Your task to perform on an android device: Open battery settings Image 0: 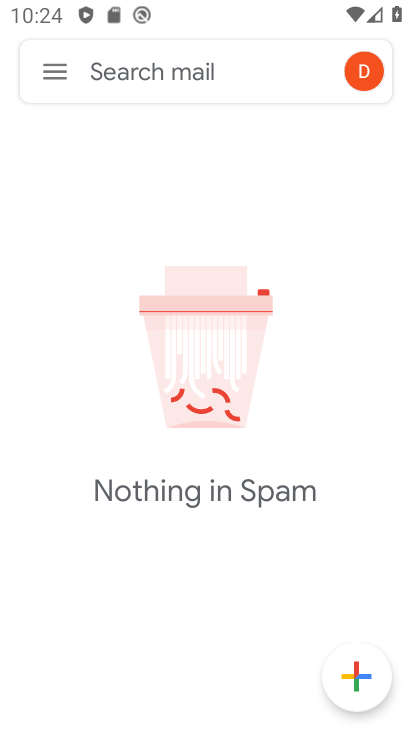
Step 0: press home button
Your task to perform on an android device: Open battery settings Image 1: 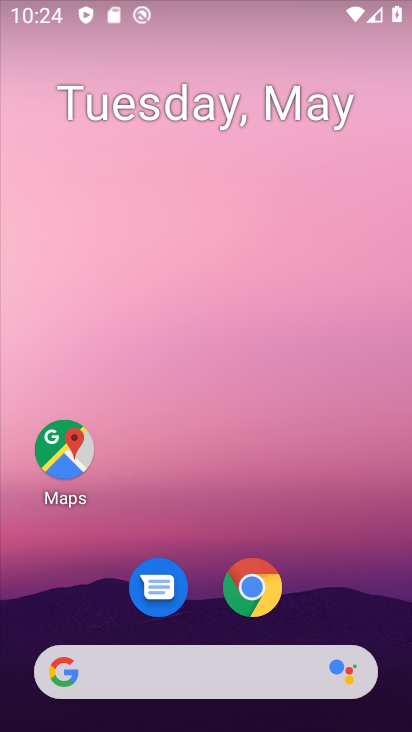
Step 1: drag from (341, 579) to (298, 123)
Your task to perform on an android device: Open battery settings Image 2: 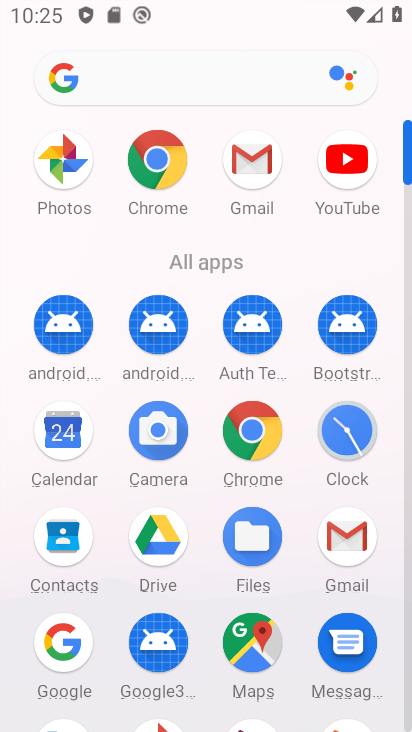
Step 2: drag from (195, 556) to (242, 254)
Your task to perform on an android device: Open battery settings Image 3: 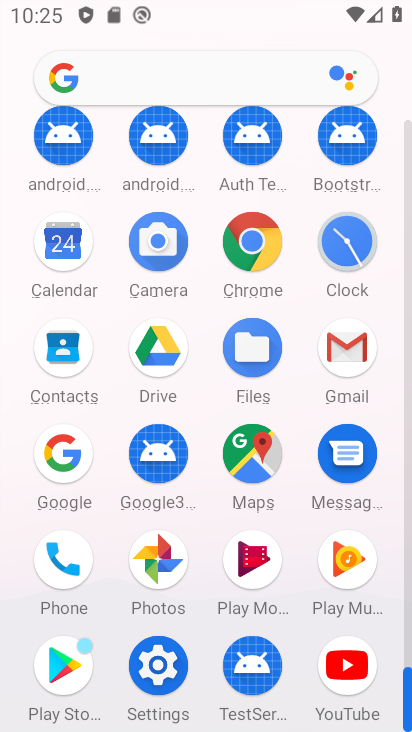
Step 3: click (169, 665)
Your task to perform on an android device: Open battery settings Image 4: 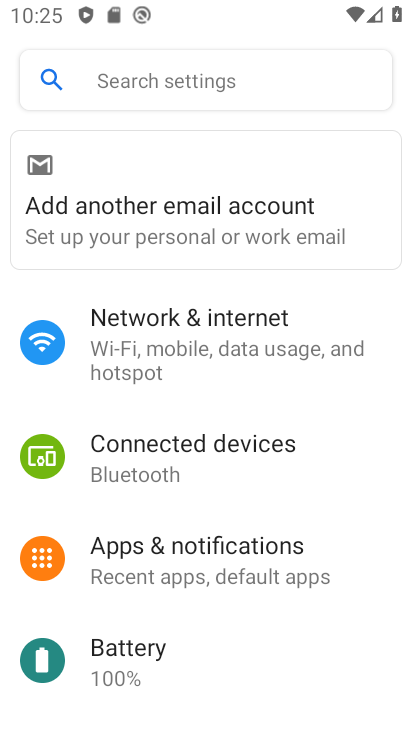
Step 4: click (170, 660)
Your task to perform on an android device: Open battery settings Image 5: 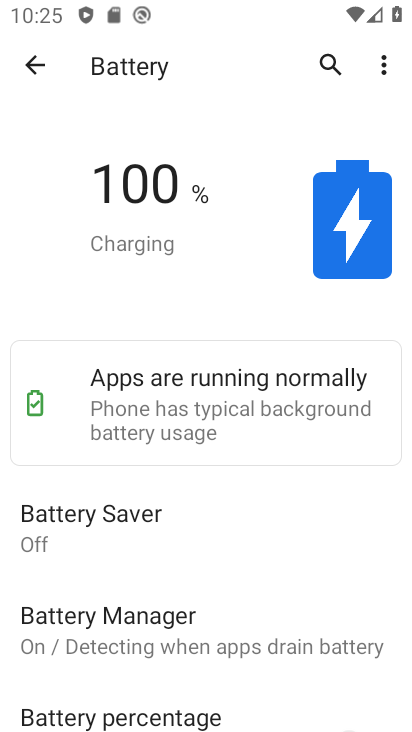
Step 5: task complete